Your task to perform on an android device: toggle translation in the chrome app Image 0: 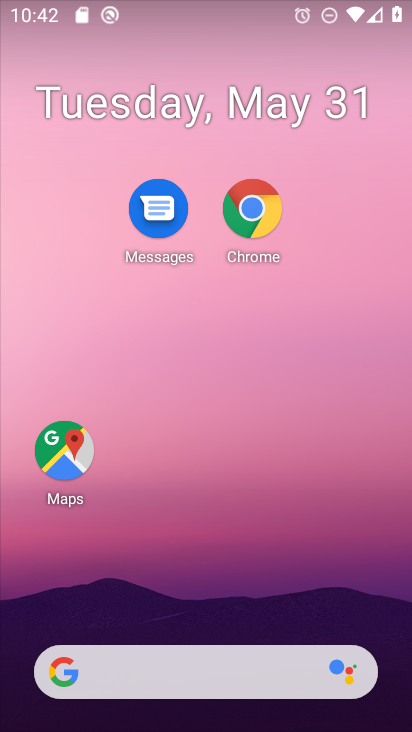
Step 0: click (251, 201)
Your task to perform on an android device: toggle translation in the chrome app Image 1: 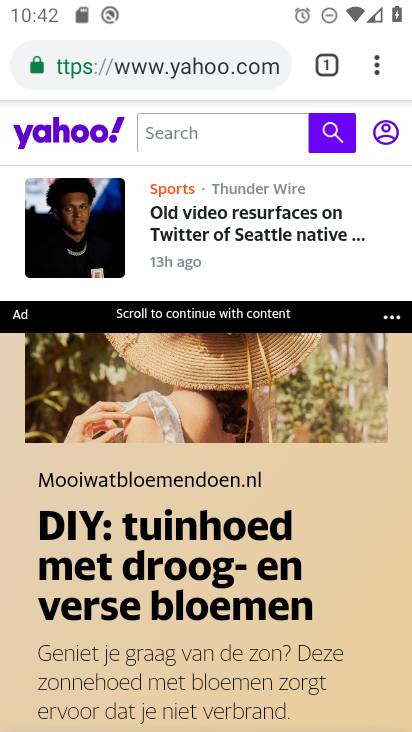
Step 1: click (381, 67)
Your task to perform on an android device: toggle translation in the chrome app Image 2: 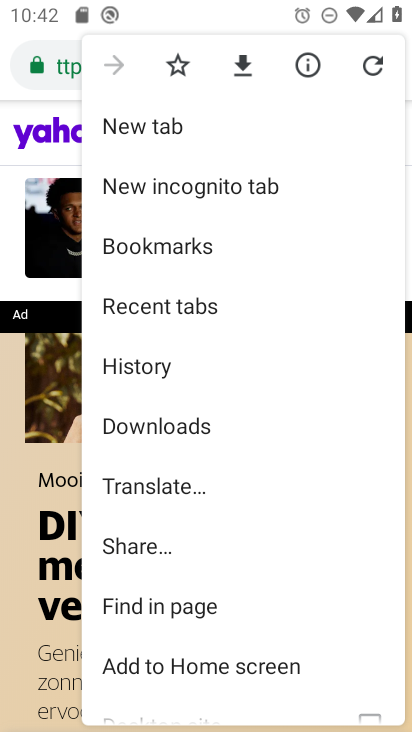
Step 2: drag from (236, 643) to (270, 130)
Your task to perform on an android device: toggle translation in the chrome app Image 3: 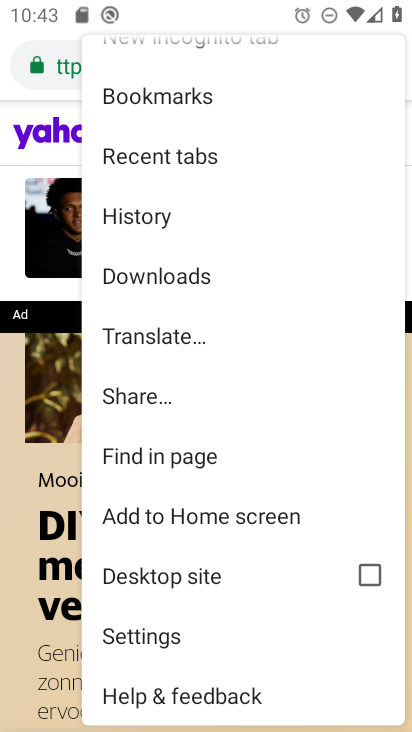
Step 3: click (190, 630)
Your task to perform on an android device: toggle translation in the chrome app Image 4: 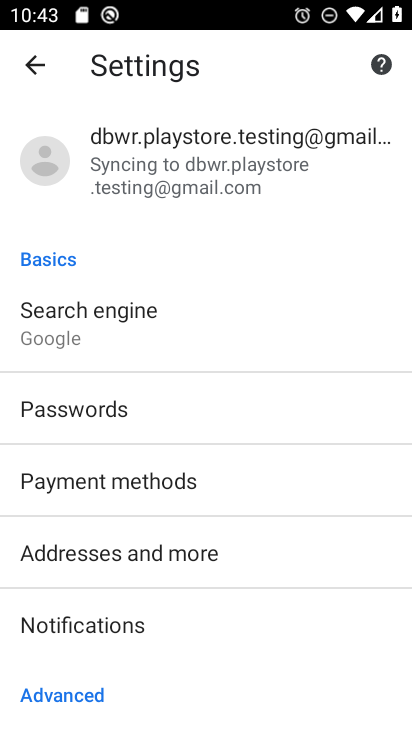
Step 4: drag from (216, 663) to (279, 169)
Your task to perform on an android device: toggle translation in the chrome app Image 5: 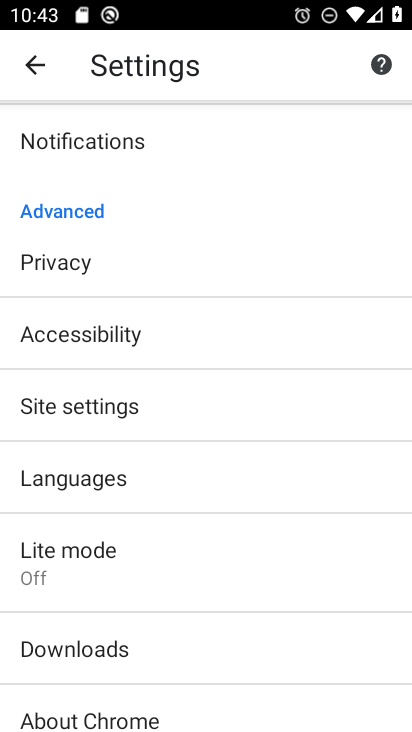
Step 5: click (132, 465)
Your task to perform on an android device: toggle translation in the chrome app Image 6: 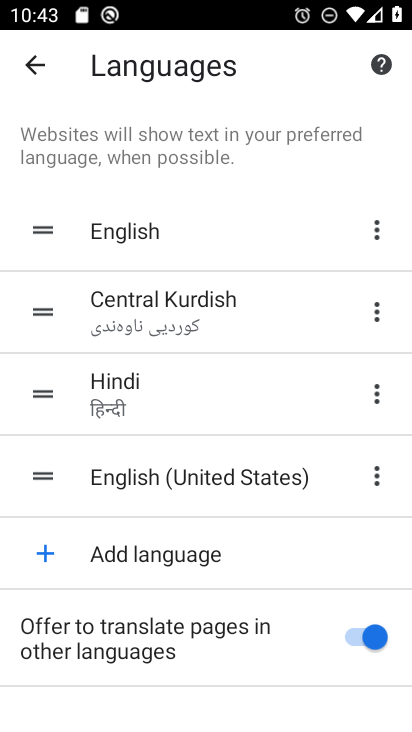
Step 6: click (357, 639)
Your task to perform on an android device: toggle translation in the chrome app Image 7: 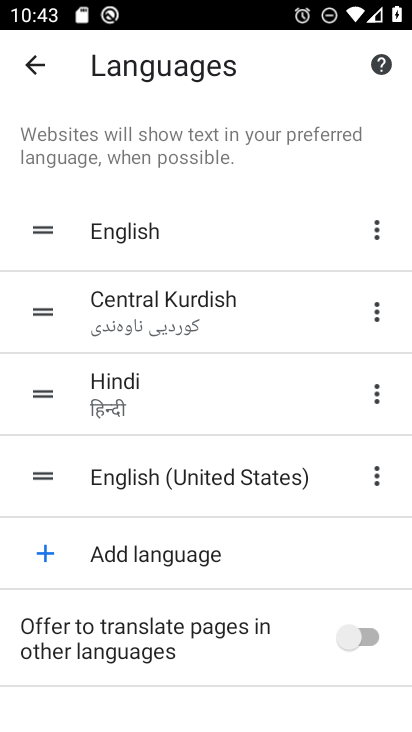
Step 7: task complete